Your task to perform on an android device: clear history in the chrome app Image 0: 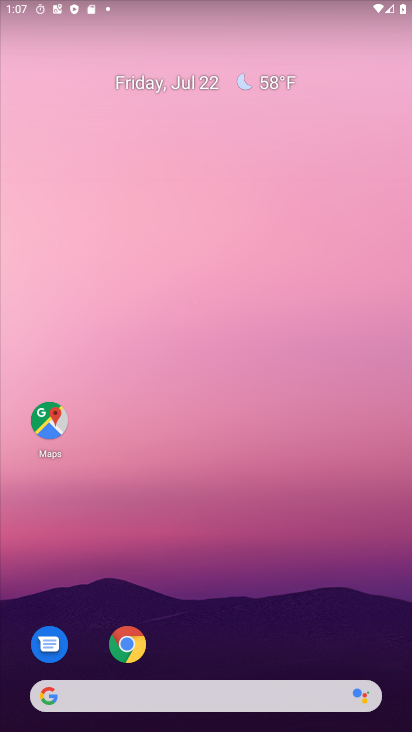
Step 0: drag from (179, 652) to (270, 227)
Your task to perform on an android device: clear history in the chrome app Image 1: 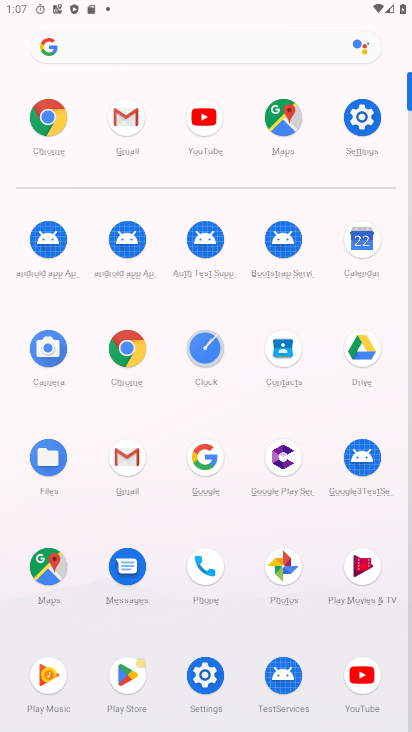
Step 1: click (127, 346)
Your task to perform on an android device: clear history in the chrome app Image 2: 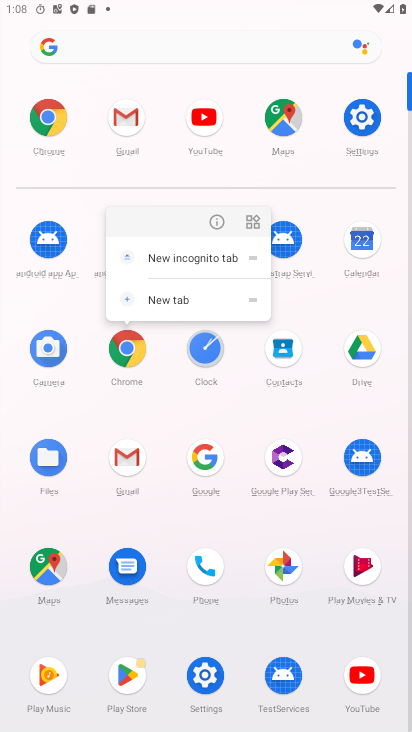
Step 2: click (219, 221)
Your task to perform on an android device: clear history in the chrome app Image 3: 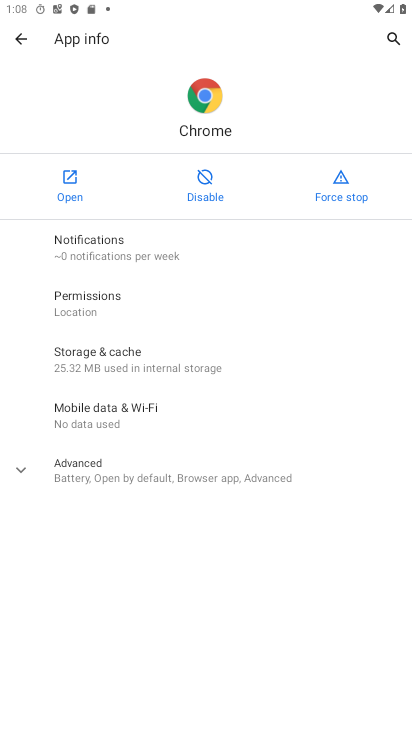
Step 3: click (66, 185)
Your task to perform on an android device: clear history in the chrome app Image 4: 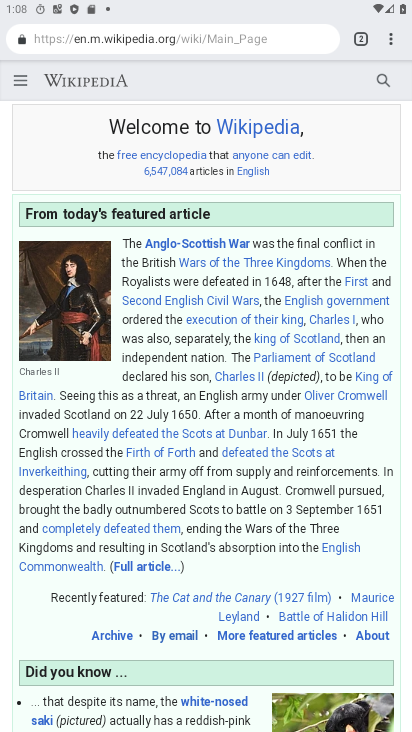
Step 4: drag from (391, 34) to (275, 249)
Your task to perform on an android device: clear history in the chrome app Image 5: 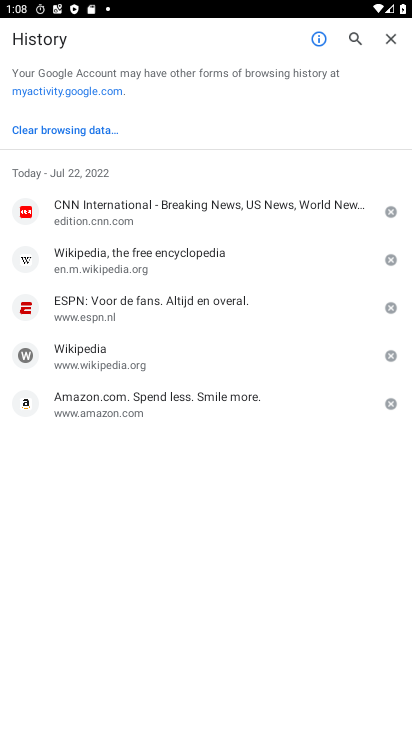
Step 5: click (75, 131)
Your task to perform on an android device: clear history in the chrome app Image 6: 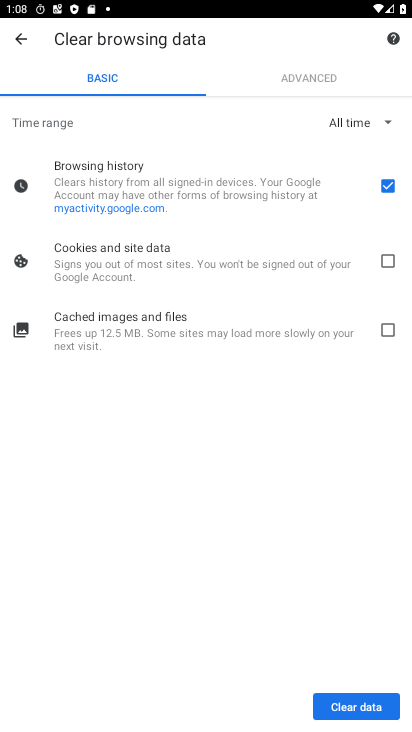
Step 6: click (336, 709)
Your task to perform on an android device: clear history in the chrome app Image 7: 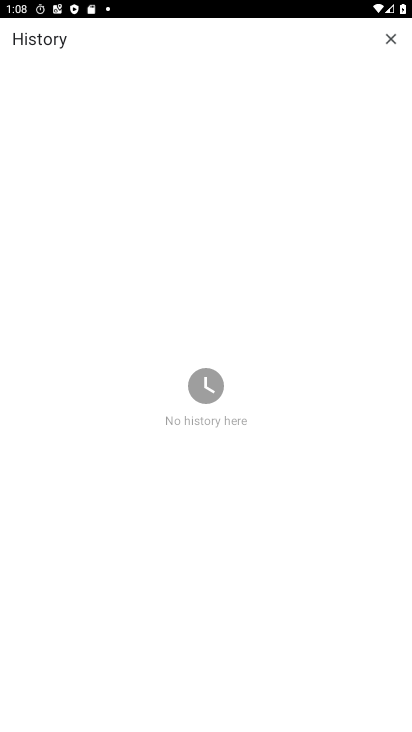
Step 7: click (172, 319)
Your task to perform on an android device: clear history in the chrome app Image 8: 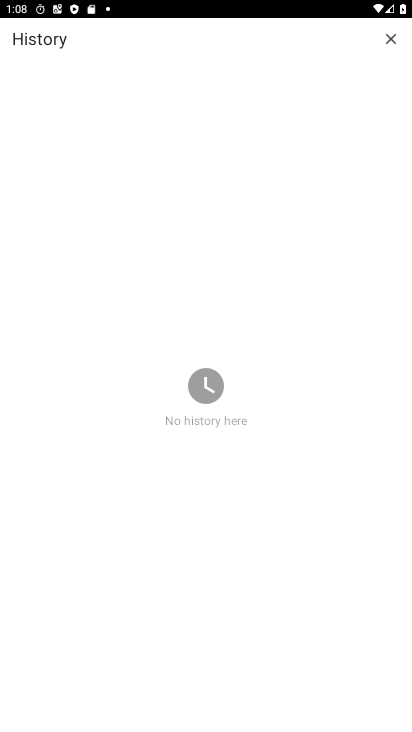
Step 8: click (189, 294)
Your task to perform on an android device: clear history in the chrome app Image 9: 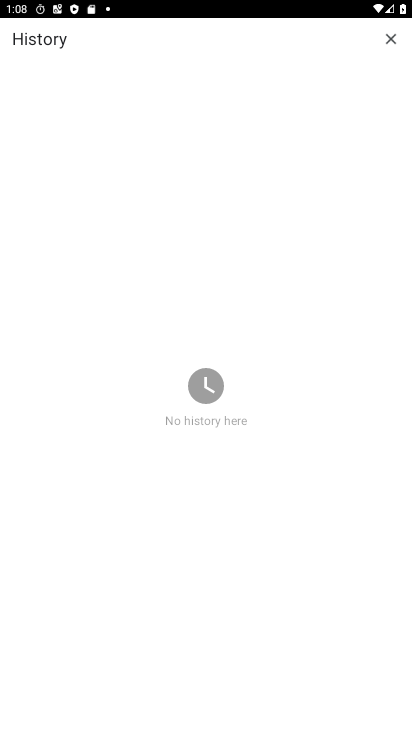
Step 9: click (189, 294)
Your task to perform on an android device: clear history in the chrome app Image 10: 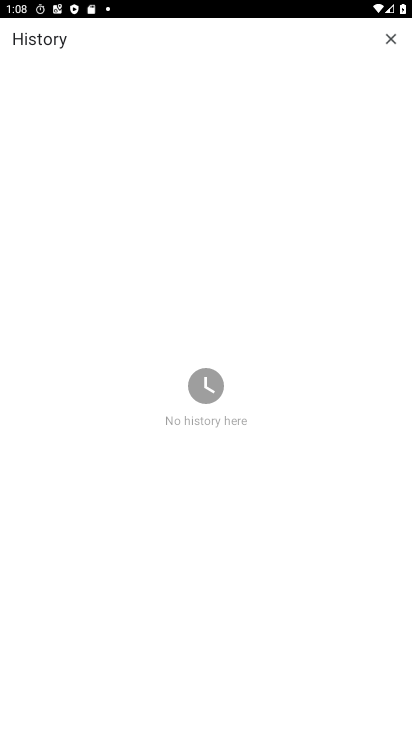
Step 10: task complete